Your task to perform on an android device: open wifi settings Image 0: 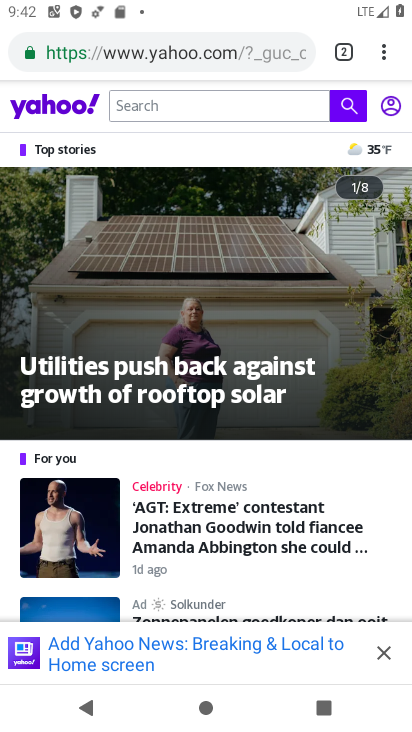
Step 0: drag from (234, 13) to (208, 519)
Your task to perform on an android device: open wifi settings Image 1: 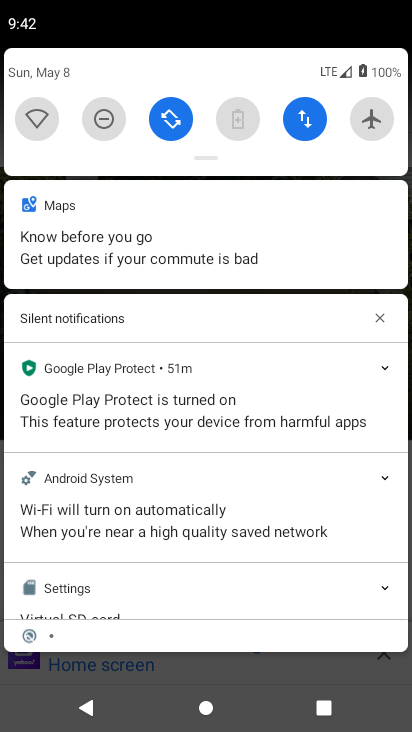
Step 1: click (40, 125)
Your task to perform on an android device: open wifi settings Image 2: 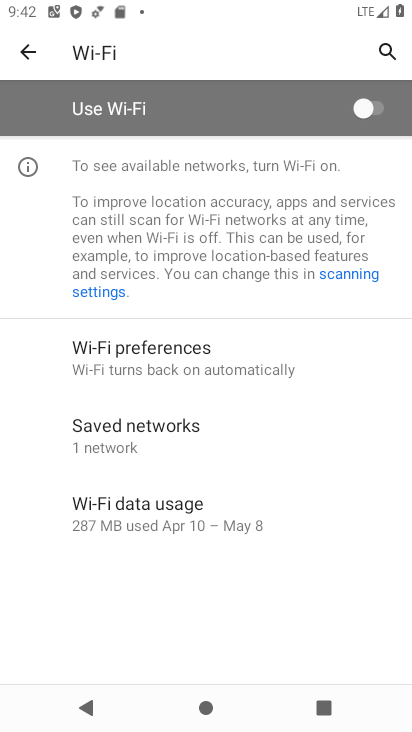
Step 2: task complete